Your task to perform on an android device: open a new tab in the chrome app Image 0: 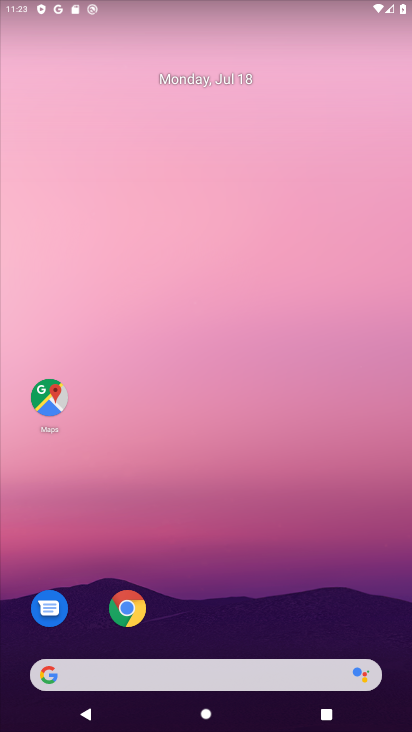
Step 0: click (118, 600)
Your task to perform on an android device: open a new tab in the chrome app Image 1: 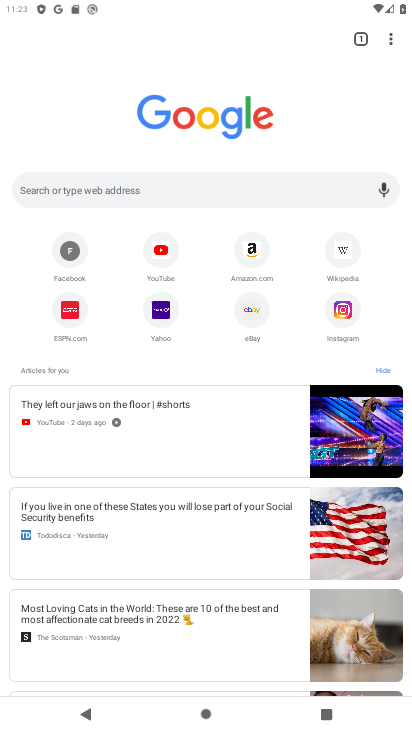
Step 1: click (392, 40)
Your task to perform on an android device: open a new tab in the chrome app Image 2: 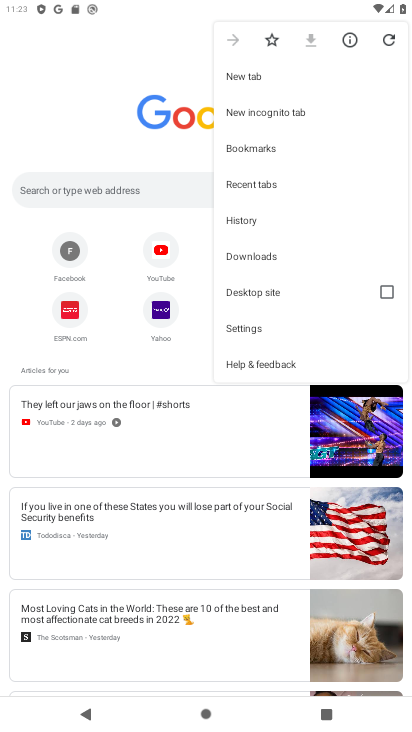
Step 2: click (258, 81)
Your task to perform on an android device: open a new tab in the chrome app Image 3: 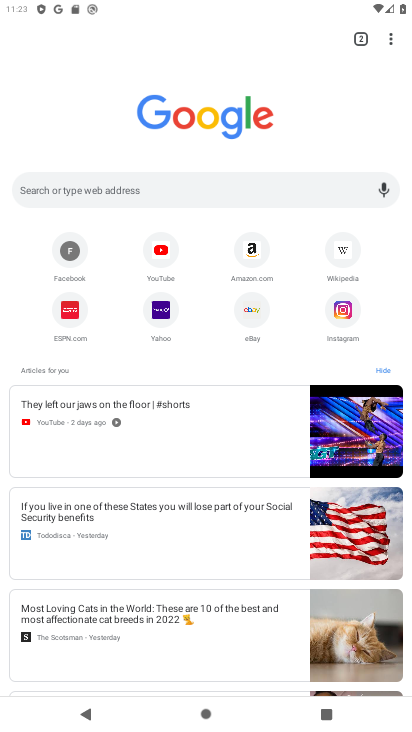
Step 3: task complete